Your task to perform on an android device: toggle notification dots Image 0: 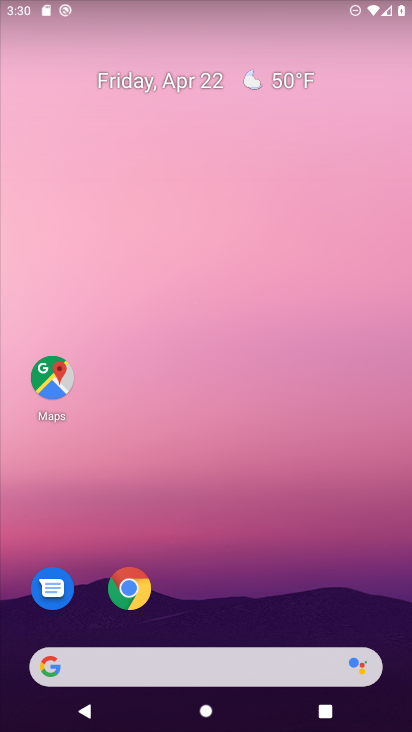
Step 0: drag from (236, 377) to (273, 107)
Your task to perform on an android device: toggle notification dots Image 1: 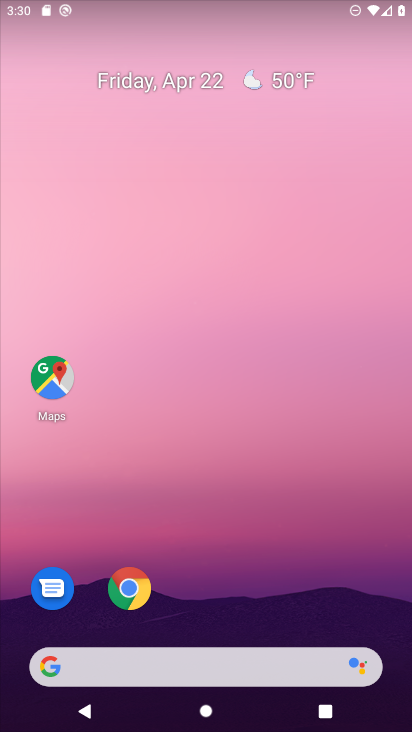
Step 1: drag from (203, 553) to (243, 79)
Your task to perform on an android device: toggle notification dots Image 2: 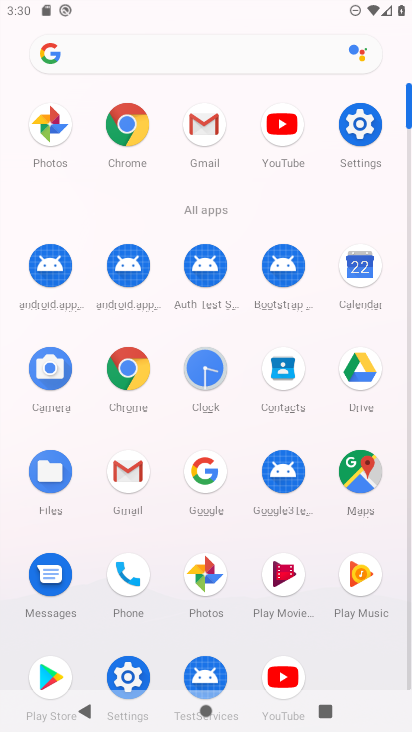
Step 2: click (358, 127)
Your task to perform on an android device: toggle notification dots Image 3: 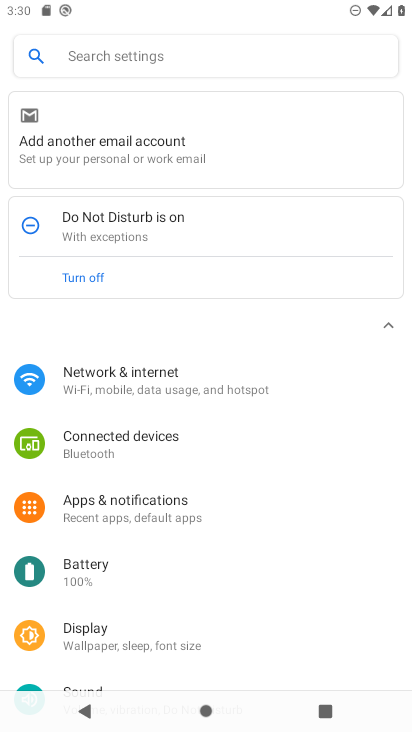
Step 3: drag from (195, 562) to (243, 146)
Your task to perform on an android device: toggle notification dots Image 4: 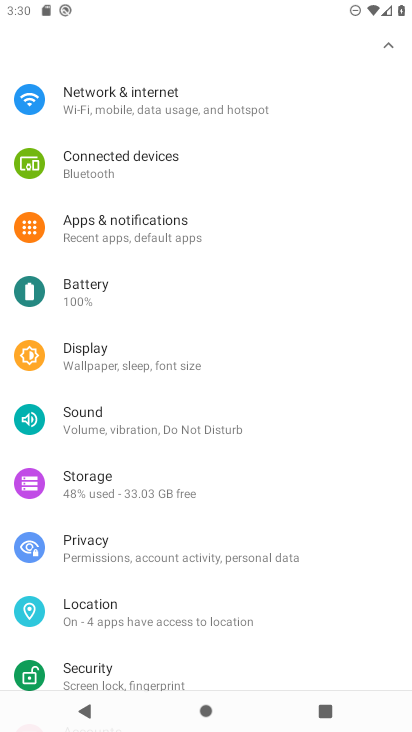
Step 4: click (173, 233)
Your task to perform on an android device: toggle notification dots Image 5: 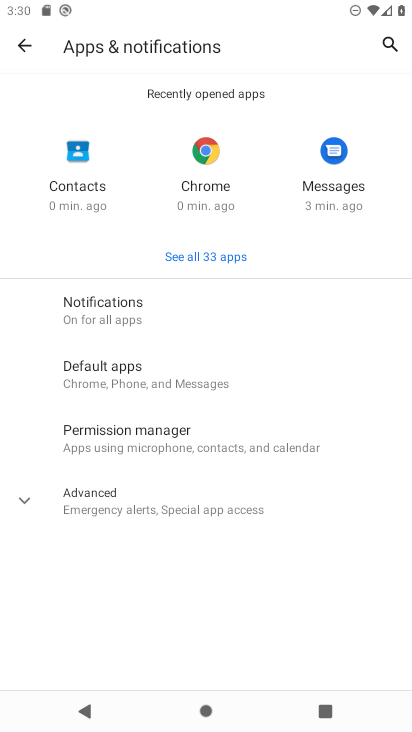
Step 5: click (165, 302)
Your task to perform on an android device: toggle notification dots Image 6: 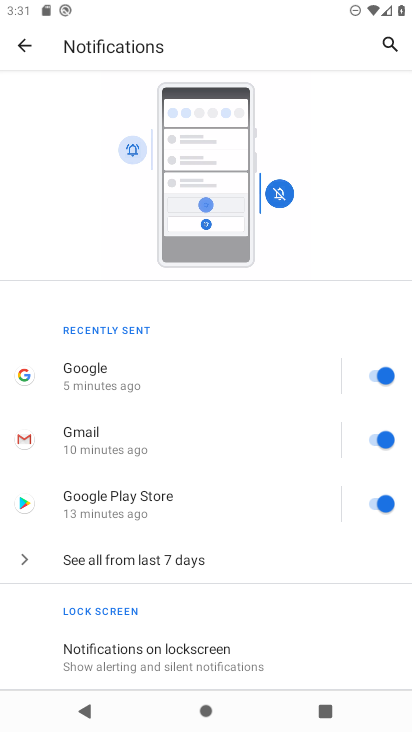
Step 6: drag from (191, 582) to (211, 272)
Your task to perform on an android device: toggle notification dots Image 7: 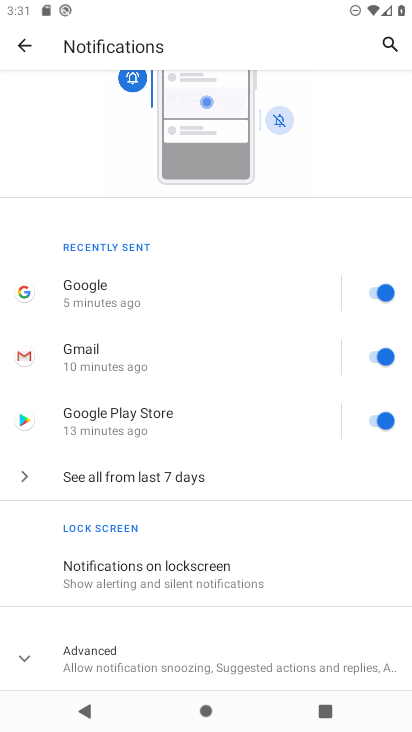
Step 7: click (151, 666)
Your task to perform on an android device: toggle notification dots Image 8: 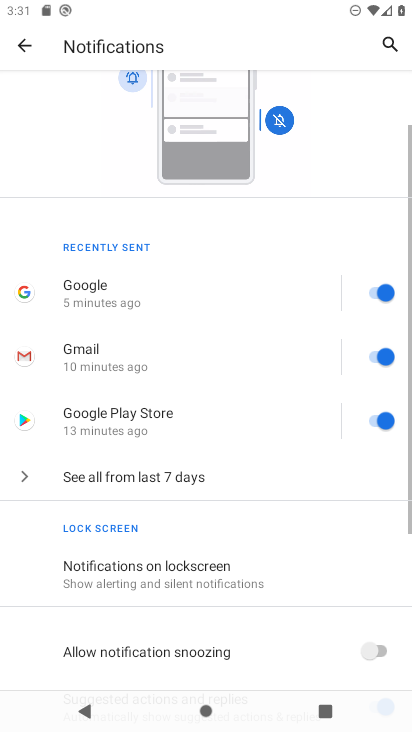
Step 8: drag from (153, 638) to (192, 365)
Your task to perform on an android device: toggle notification dots Image 9: 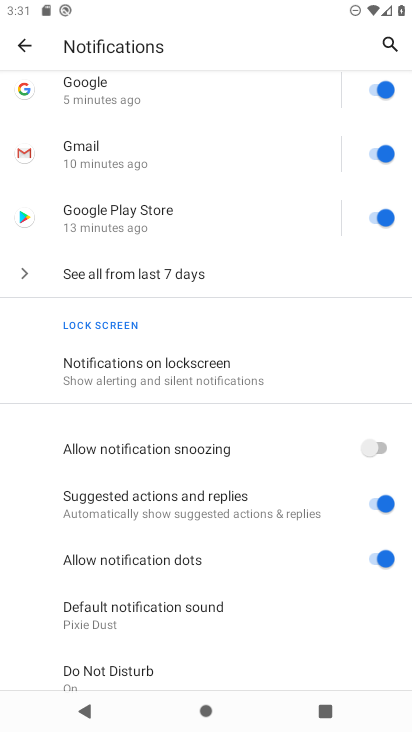
Step 9: click (383, 561)
Your task to perform on an android device: toggle notification dots Image 10: 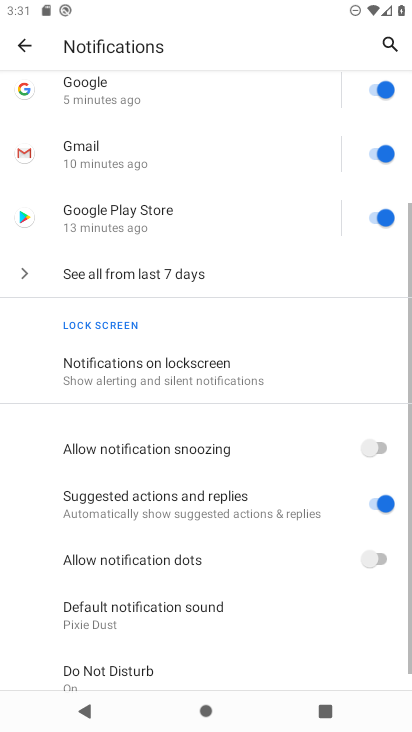
Step 10: task complete